Your task to perform on an android device: set the timer Image 0: 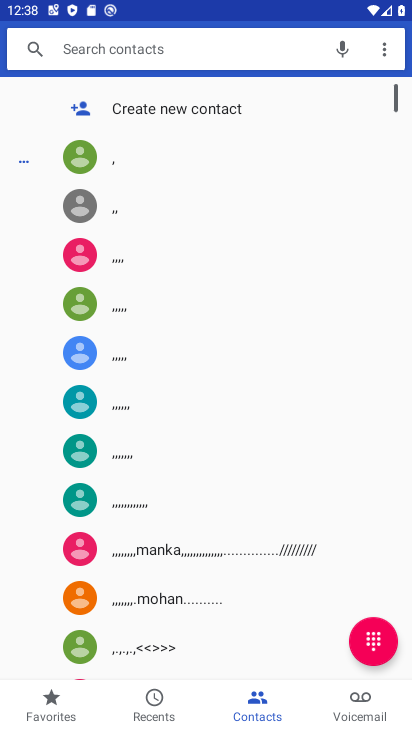
Step 0: press home button
Your task to perform on an android device: set the timer Image 1: 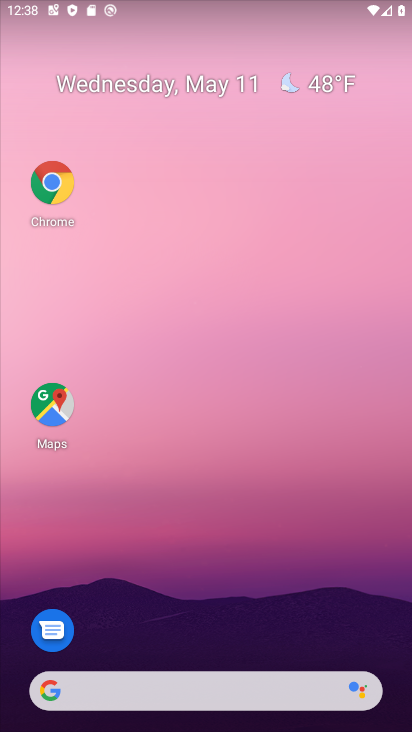
Step 1: drag from (215, 665) to (186, 14)
Your task to perform on an android device: set the timer Image 2: 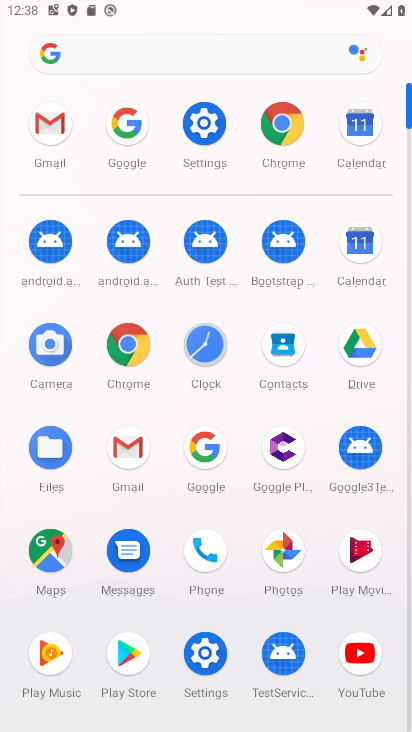
Step 2: click (207, 333)
Your task to perform on an android device: set the timer Image 3: 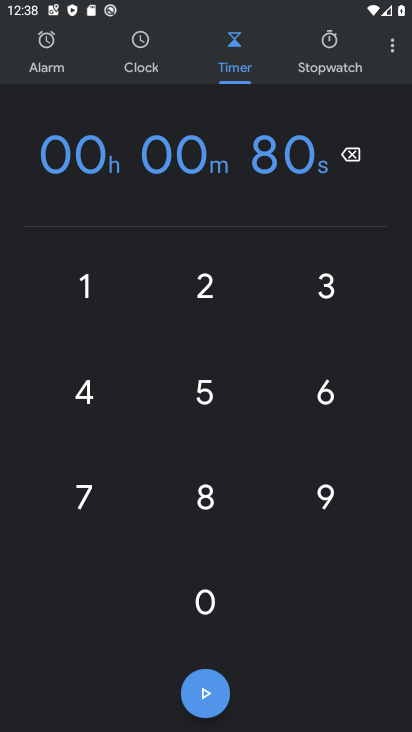
Step 3: click (211, 304)
Your task to perform on an android device: set the timer Image 4: 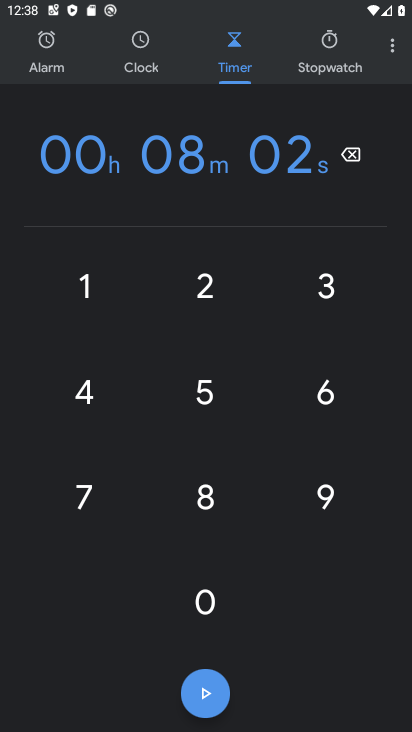
Step 4: task complete